Your task to perform on an android device: When is my next meeting? Image 0: 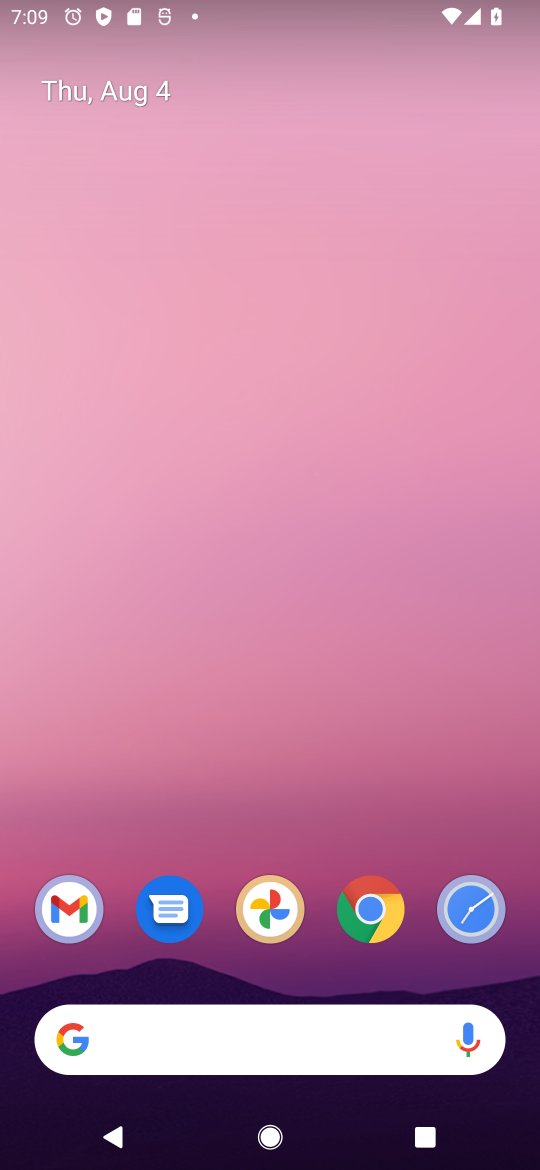
Step 0: drag from (359, 784) to (286, 257)
Your task to perform on an android device: When is my next meeting? Image 1: 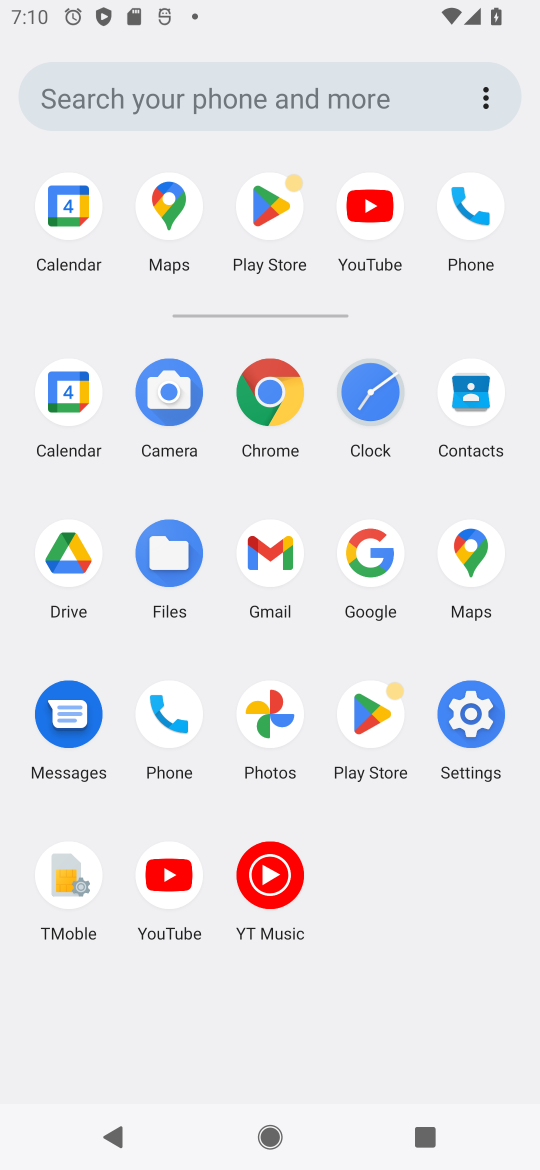
Step 1: click (67, 396)
Your task to perform on an android device: When is my next meeting? Image 2: 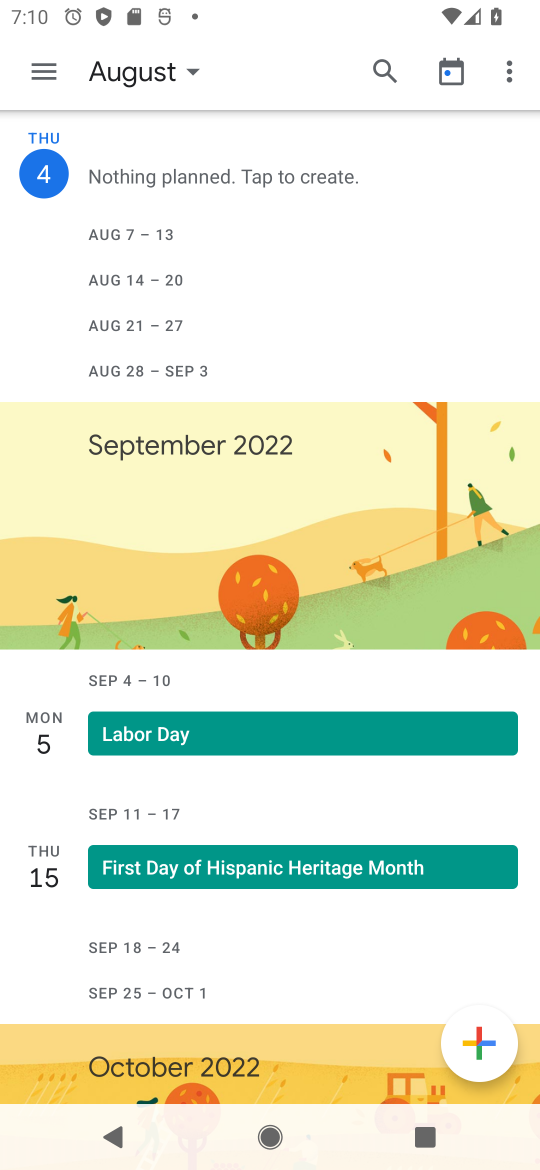
Step 2: click (115, 77)
Your task to perform on an android device: When is my next meeting? Image 3: 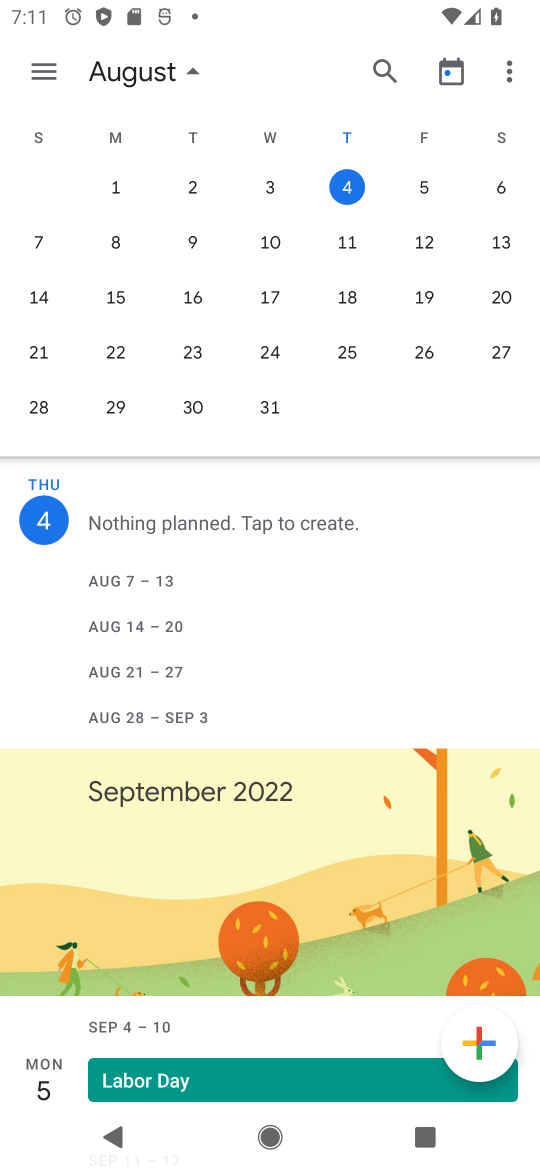
Step 3: task complete